Your task to perform on an android device: Go to wifi settings Image 0: 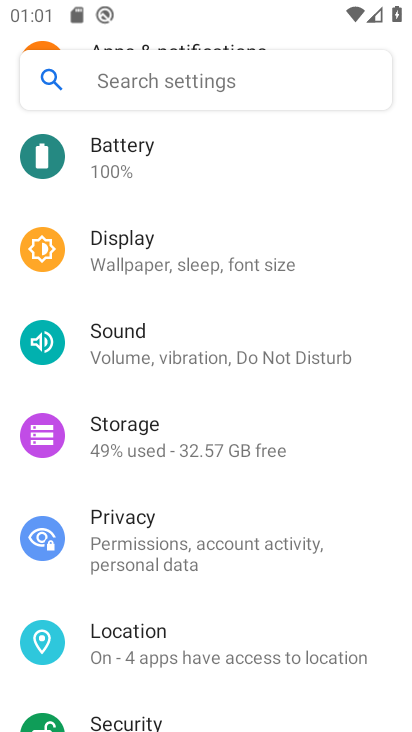
Step 0: drag from (391, 621) to (384, 469)
Your task to perform on an android device: Go to wifi settings Image 1: 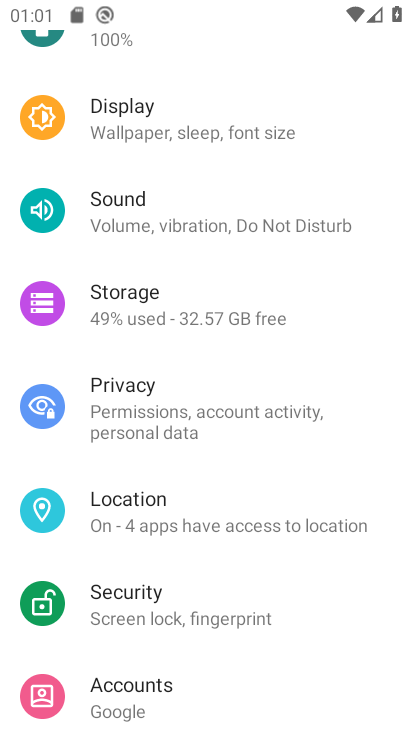
Step 1: drag from (362, 644) to (358, 495)
Your task to perform on an android device: Go to wifi settings Image 2: 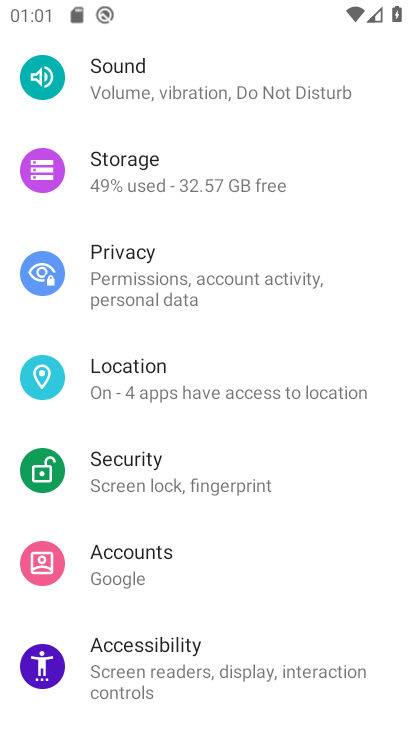
Step 2: drag from (363, 661) to (364, 514)
Your task to perform on an android device: Go to wifi settings Image 3: 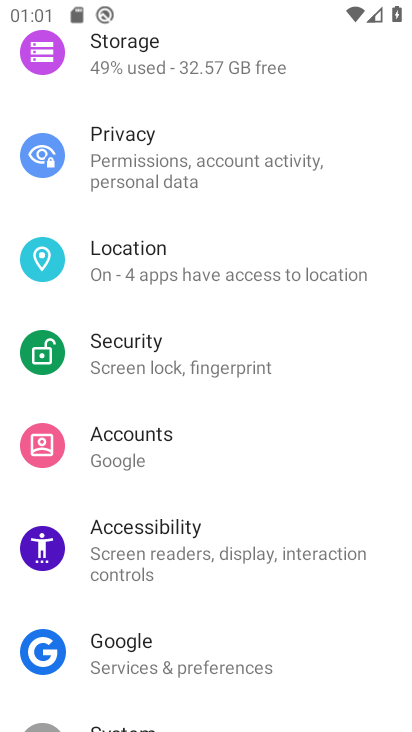
Step 3: drag from (362, 650) to (362, 504)
Your task to perform on an android device: Go to wifi settings Image 4: 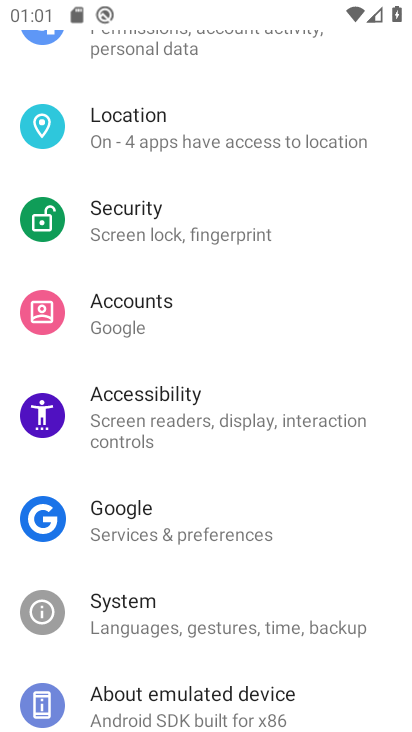
Step 4: drag from (364, 680) to (365, 568)
Your task to perform on an android device: Go to wifi settings Image 5: 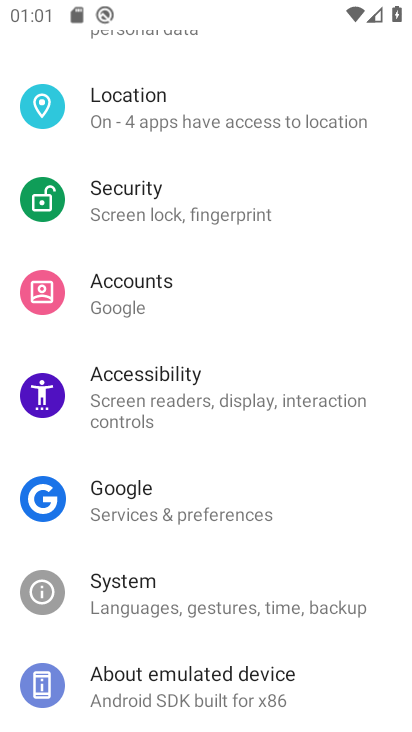
Step 5: drag from (361, 480) to (358, 645)
Your task to perform on an android device: Go to wifi settings Image 6: 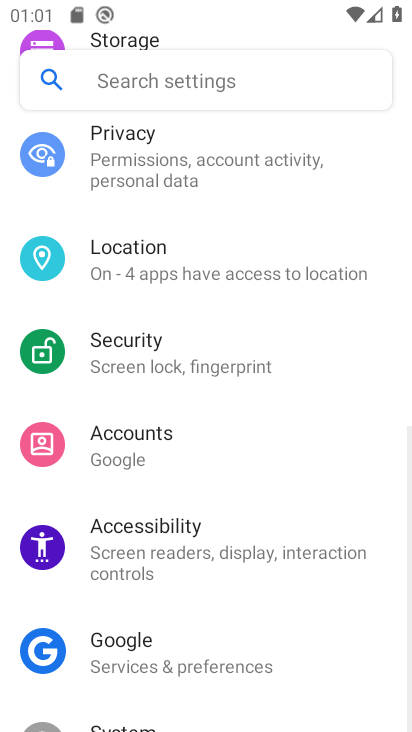
Step 6: drag from (362, 438) to (342, 623)
Your task to perform on an android device: Go to wifi settings Image 7: 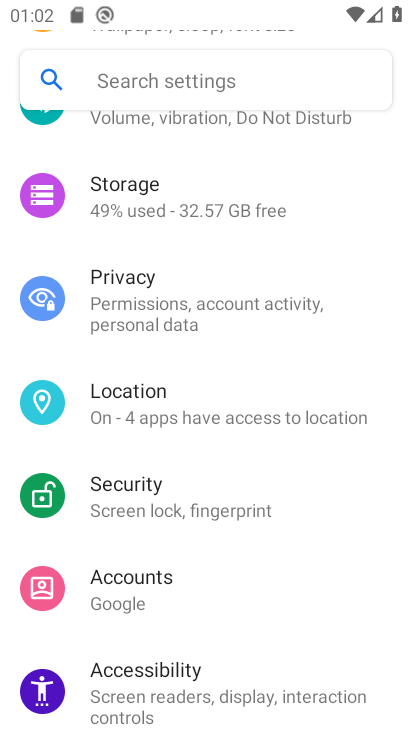
Step 7: drag from (346, 467) to (341, 566)
Your task to perform on an android device: Go to wifi settings Image 8: 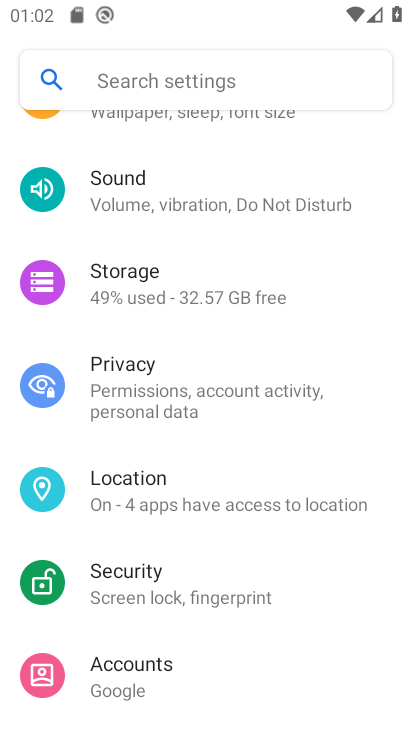
Step 8: drag from (362, 400) to (360, 533)
Your task to perform on an android device: Go to wifi settings Image 9: 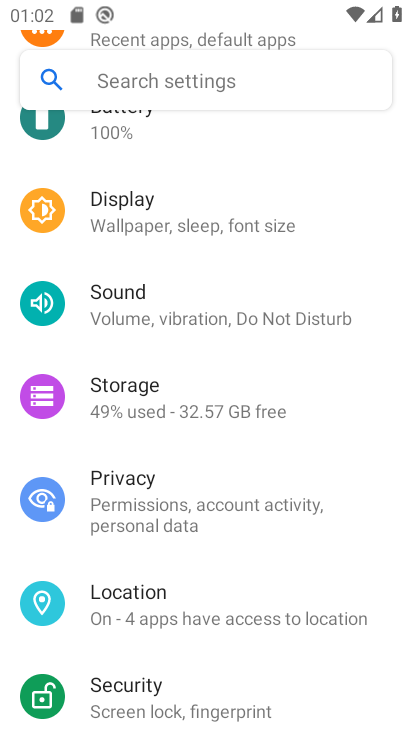
Step 9: drag from (361, 388) to (352, 496)
Your task to perform on an android device: Go to wifi settings Image 10: 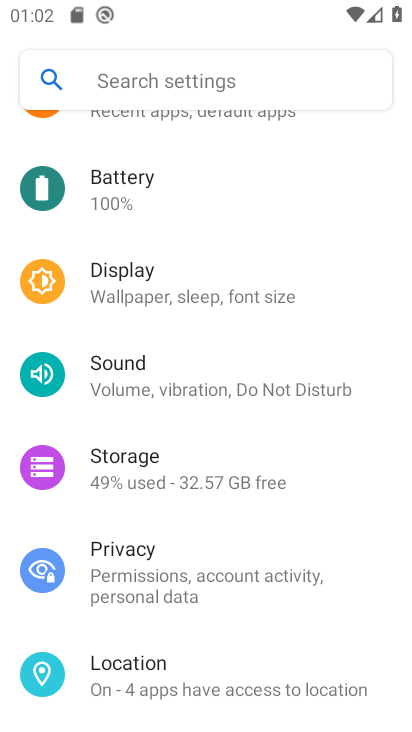
Step 10: drag from (357, 349) to (360, 447)
Your task to perform on an android device: Go to wifi settings Image 11: 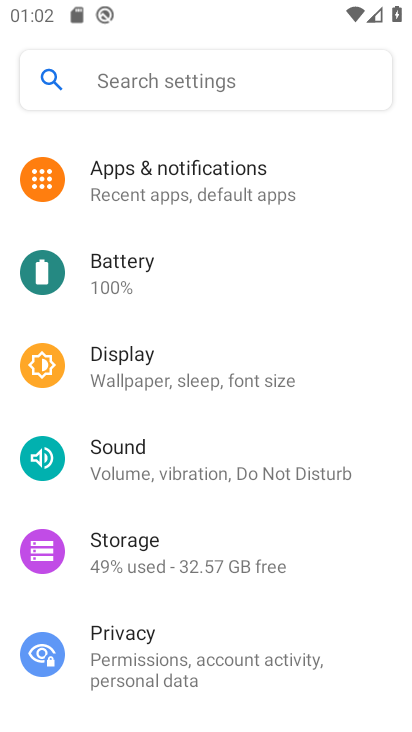
Step 11: drag from (369, 323) to (369, 425)
Your task to perform on an android device: Go to wifi settings Image 12: 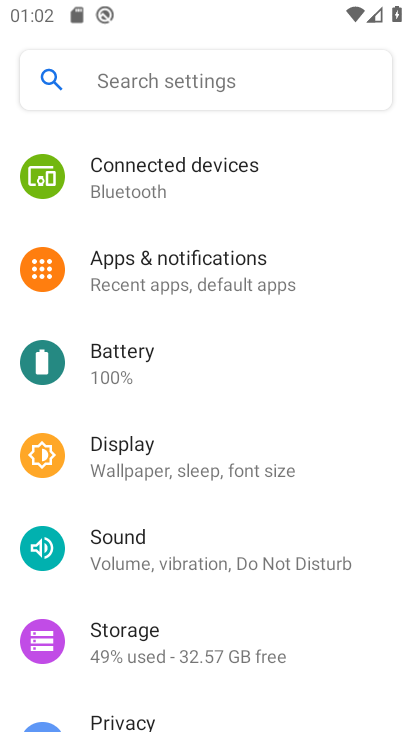
Step 12: drag from (365, 319) to (365, 421)
Your task to perform on an android device: Go to wifi settings Image 13: 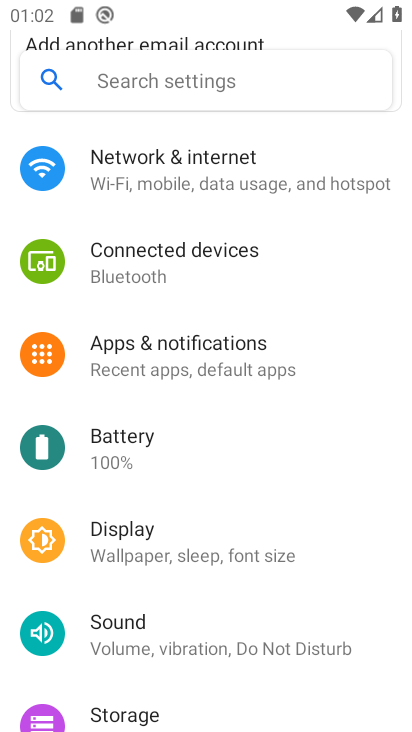
Step 13: drag from (365, 285) to (356, 386)
Your task to perform on an android device: Go to wifi settings Image 14: 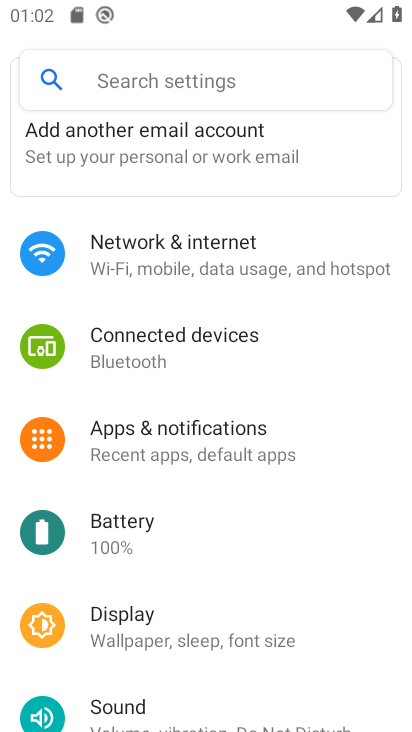
Step 14: drag from (358, 326) to (350, 429)
Your task to perform on an android device: Go to wifi settings Image 15: 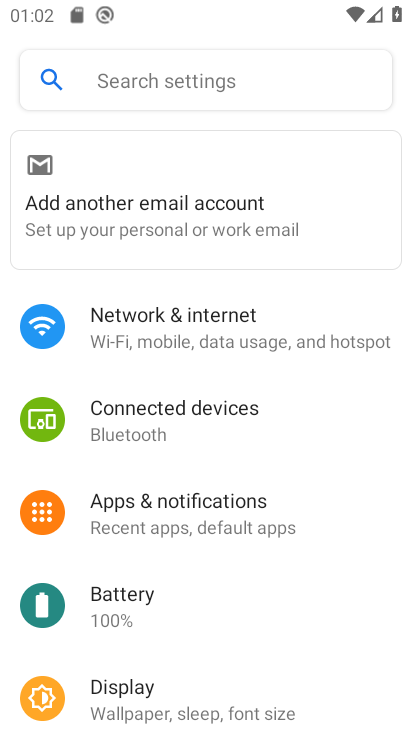
Step 15: click (275, 326)
Your task to perform on an android device: Go to wifi settings Image 16: 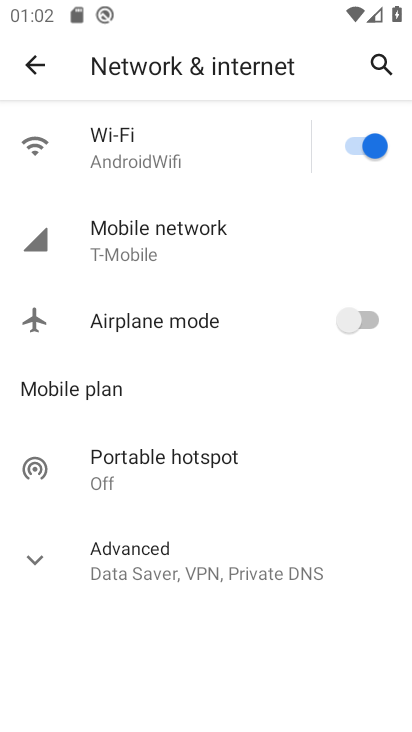
Step 16: drag from (328, 506) to (318, 356)
Your task to perform on an android device: Go to wifi settings Image 17: 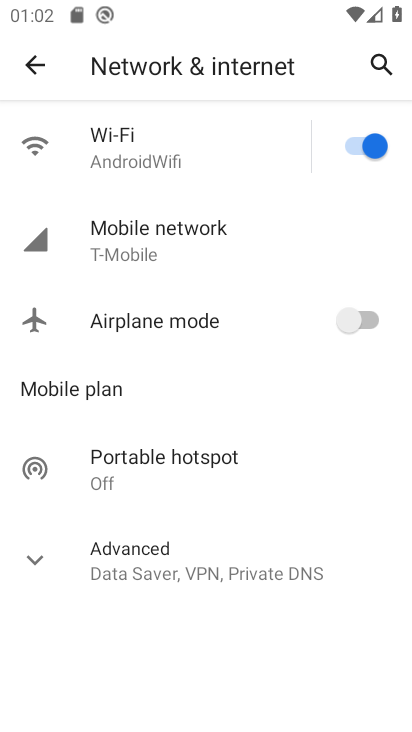
Step 17: click (164, 155)
Your task to perform on an android device: Go to wifi settings Image 18: 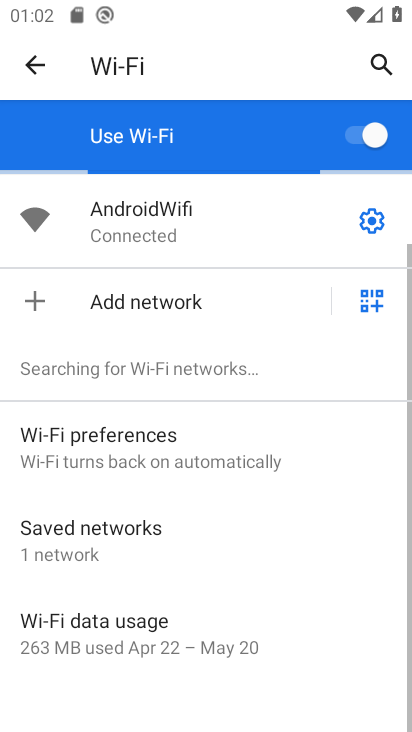
Step 18: task complete